Your task to perform on an android device: Search for Italian restaurants on Maps Image 0: 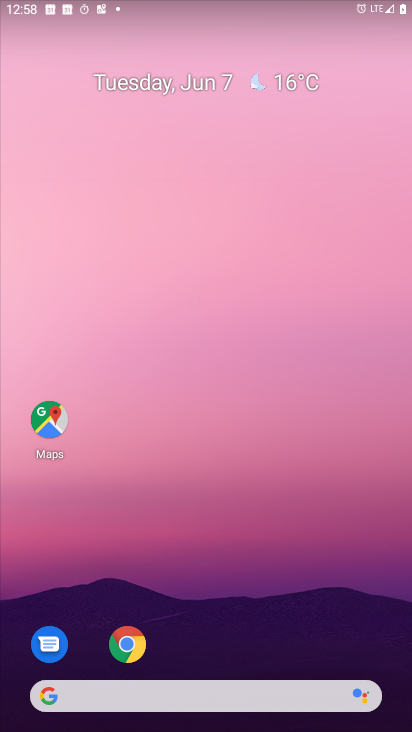
Step 0: click (37, 422)
Your task to perform on an android device: Search for Italian restaurants on Maps Image 1: 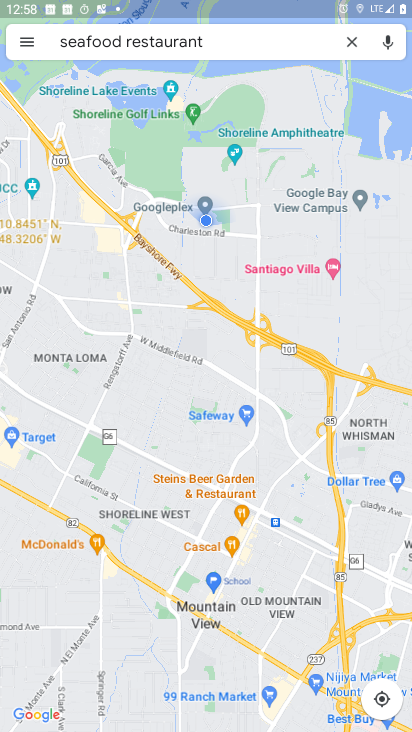
Step 1: click (353, 44)
Your task to perform on an android device: Search for Italian restaurants on Maps Image 2: 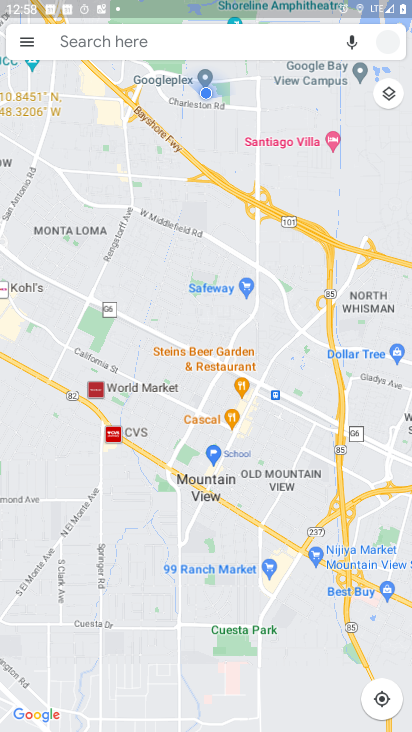
Step 2: click (191, 37)
Your task to perform on an android device: Search for Italian restaurants on Maps Image 3: 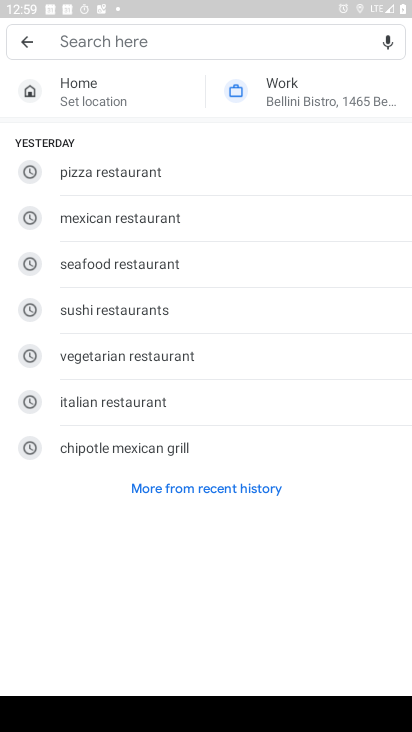
Step 3: click (103, 401)
Your task to perform on an android device: Search for Italian restaurants on Maps Image 4: 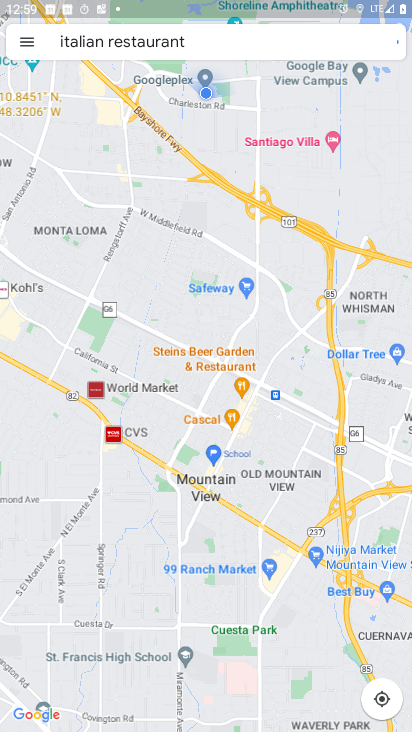
Step 4: task complete